Your task to perform on an android device: toggle improve location accuracy Image 0: 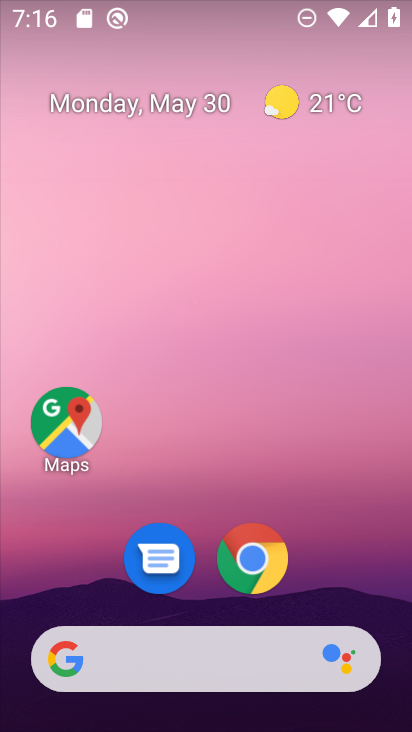
Step 0: drag from (331, 538) to (206, 22)
Your task to perform on an android device: toggle improve location accuracy Image 1: 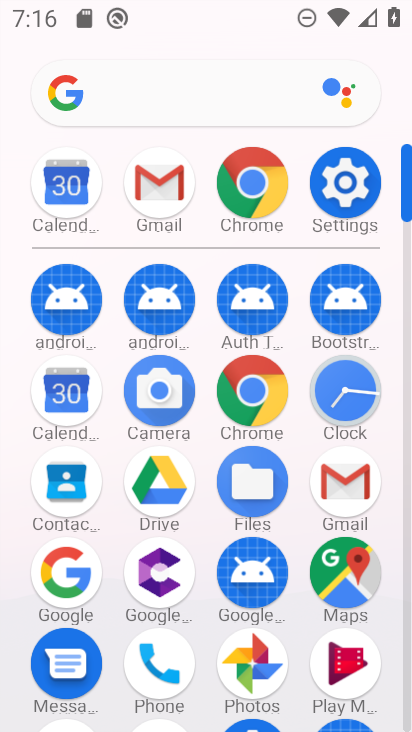
Step 1: click (344, 185)
Your task to perform on an android device: toggle improve location accuracy Image 2: 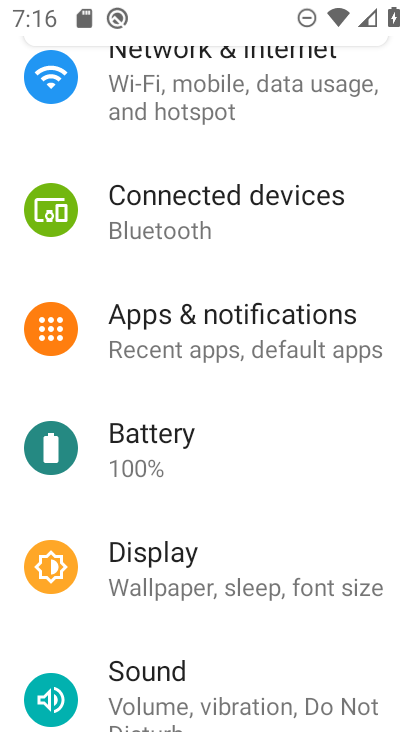
Step 2: drag from (254, 485) to (222, 188)
Your task to perform on an android device: toggle improve location accuracy Image 3: 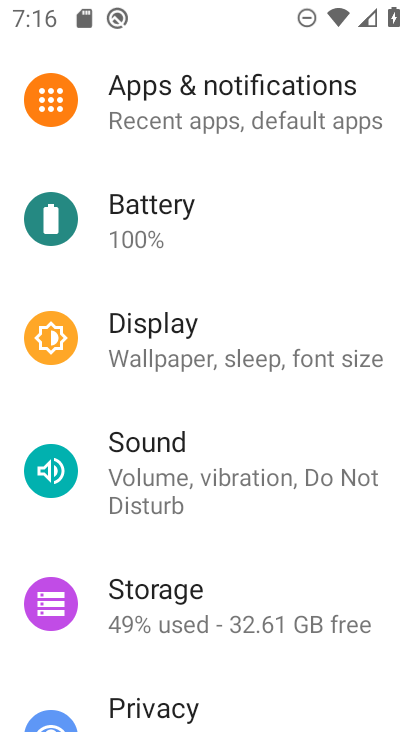
Step 3: drag from (236, 572) to (214, 243)
Your task to perform on an android device: toggle improve location accuracy Image 4: 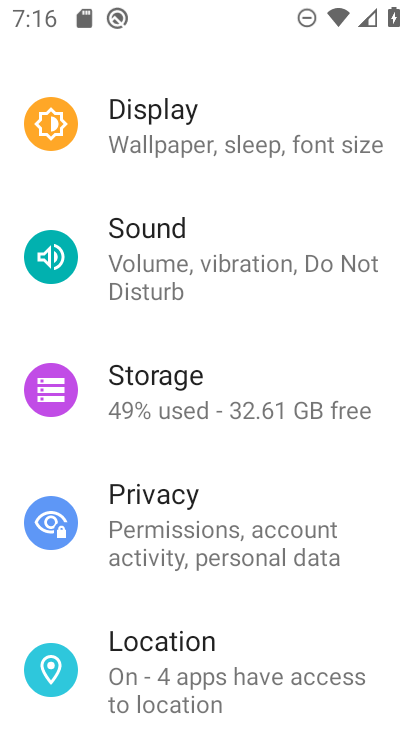
Step 4: click (180, 645)
Your task to perform on an android device: toggle improve location accuracy Image 5: 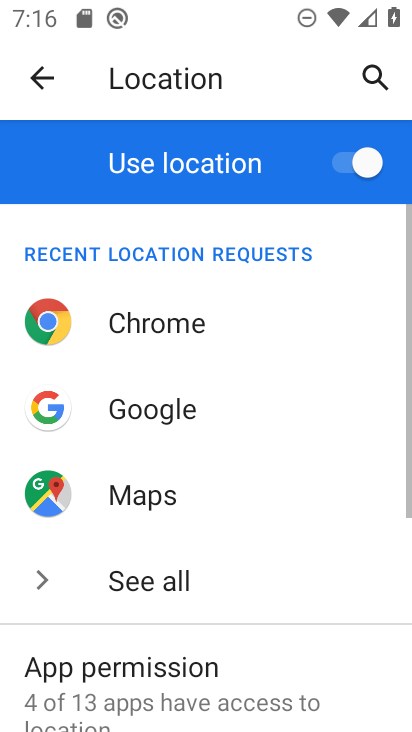
Step 5: drag from (237, 602) to (230, 298)
Your task to perform on an android device: toggle improve location accuracy Image 6: 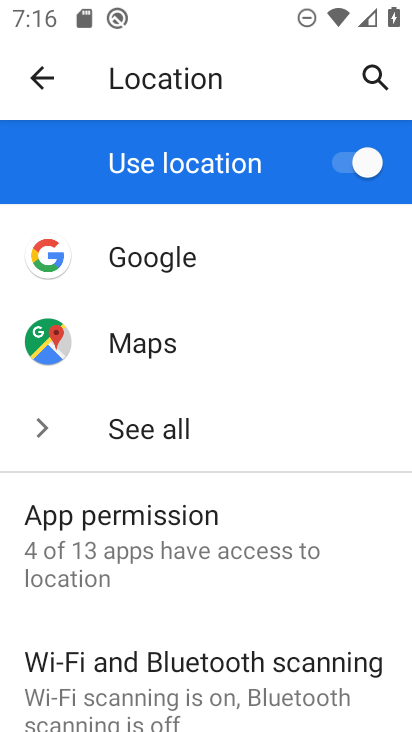
Step 6: drag from (186, 599) to (186, 250)
Your task to perform on an android device: toggle improve location accuracy Image 7: 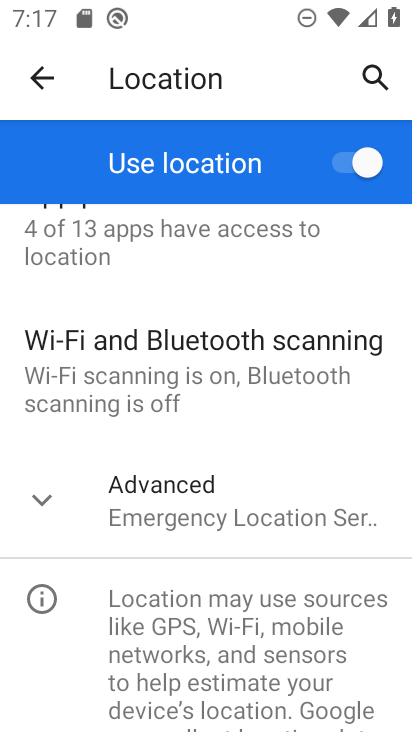
Step 7: click (39, 501)
Your task to perform on an android device: toggle improve location accuracy Image 8: 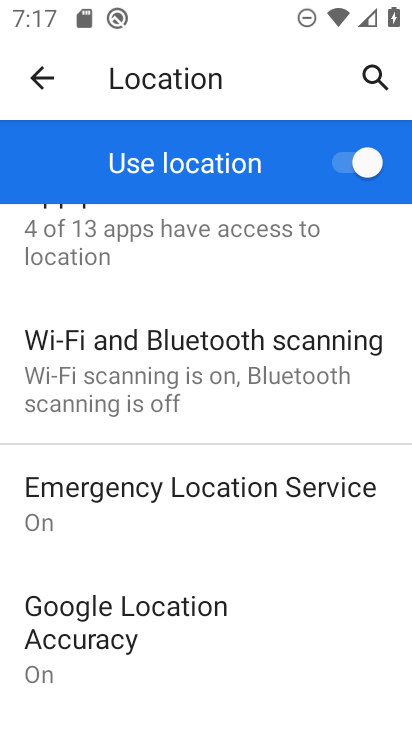
Step 8: click (124, 615)
Your task to perform on an android device: toggle improve location accuracy Image 9: 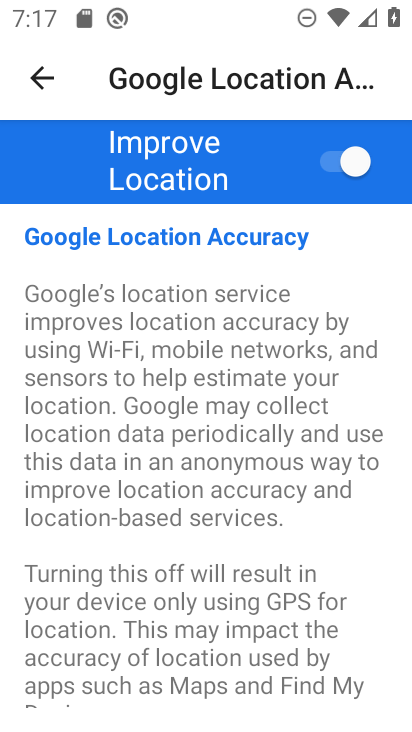
Step 9: click (343, 165)
Your task to perform on an android device: toggle improve location accuracy Image 10: 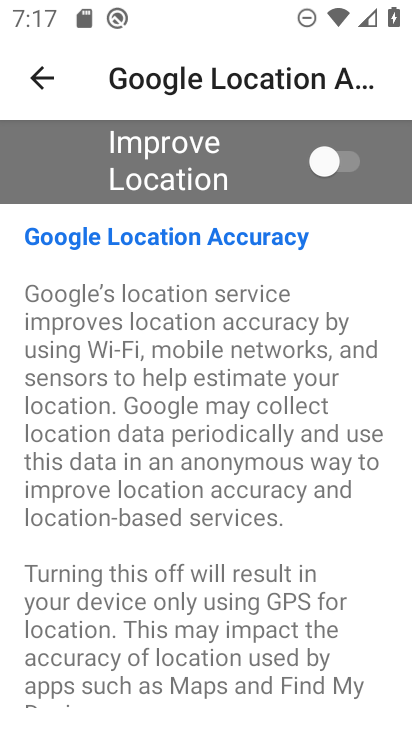
Step 10: task complete